Your task to perform on an android device: see creations saved in the google photos Image 0: 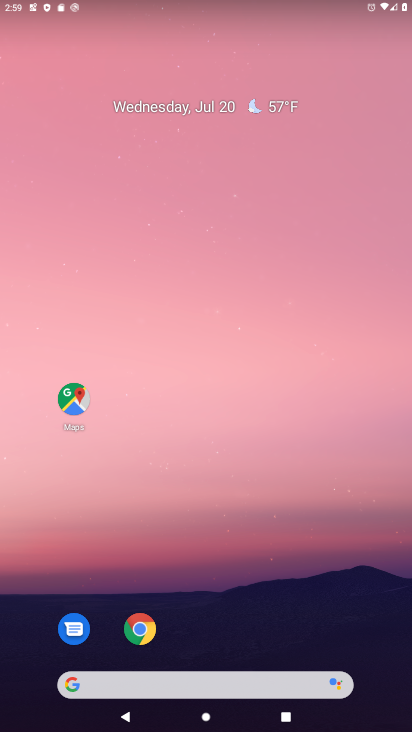
Step 0: drag from (375, 674) to (346, 150)
Your task to perform on an android device: see creations saved in the google photos Image 1: 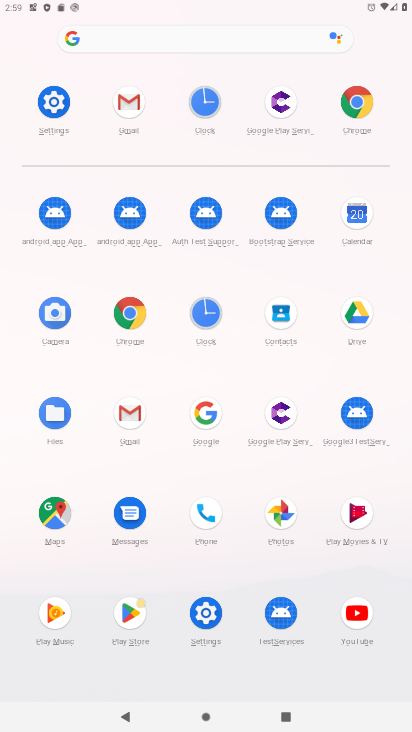
Step 1: click (281, 512)
Your task to perform on an android device: see creations saved in the google photos Image 2: 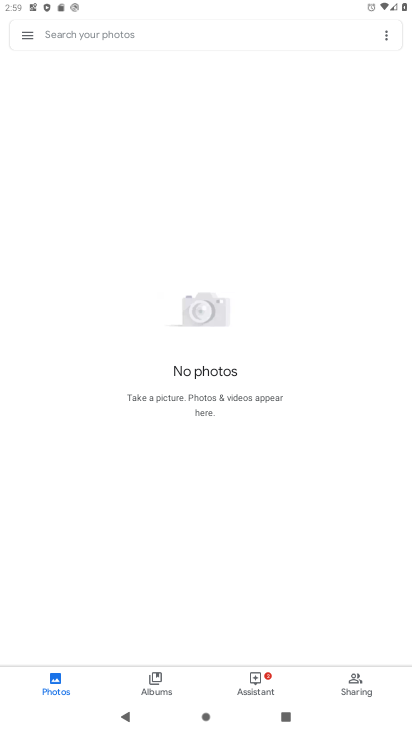
Step 2: task complete